Your task to perform on an android device: Open the stopwatch Image 0: 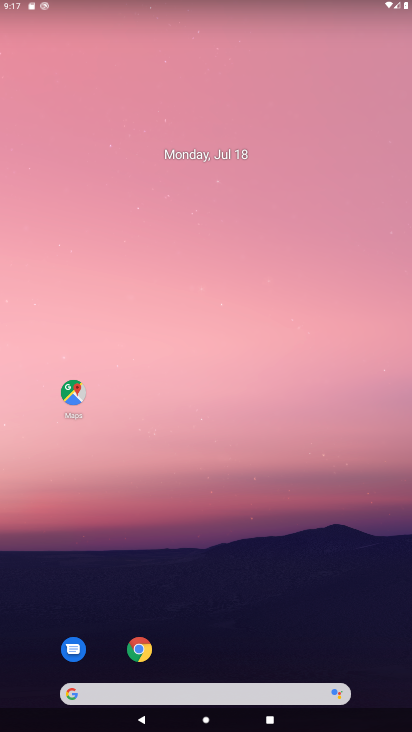
Step 0: drag from (268, 481) to (244, 22)
Your task to perform on an android device: Open the stopwatch Image 1: 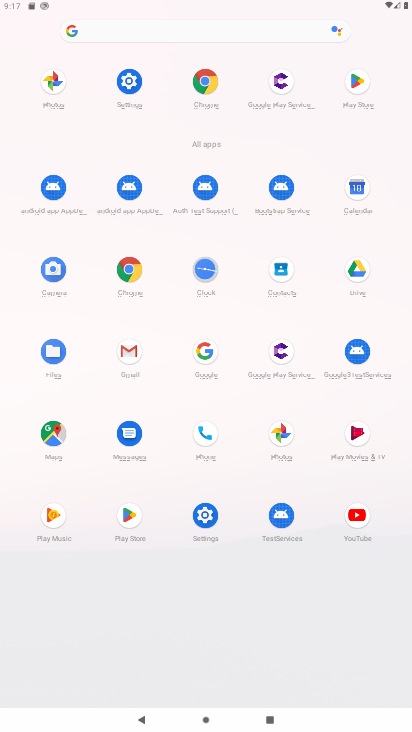
Step 1: click (207, 271)
Your task to perform on an android device: Open the stopwatch Image 2: 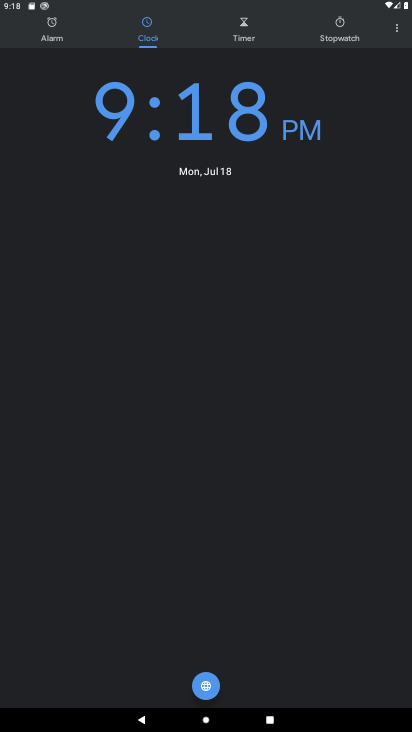
Step 2: click (330, 33)
Your task to perform on an android device: Open the stopwatch Image 3: 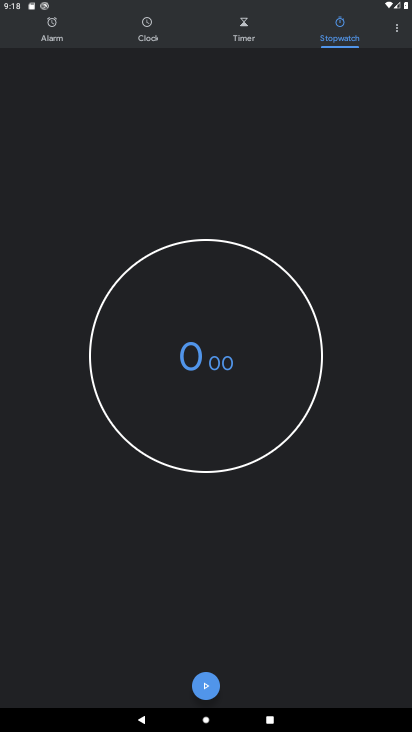
Step 3: task complete